Your task to perform on an android device: turn on the 12-hour format for clock Image 0: 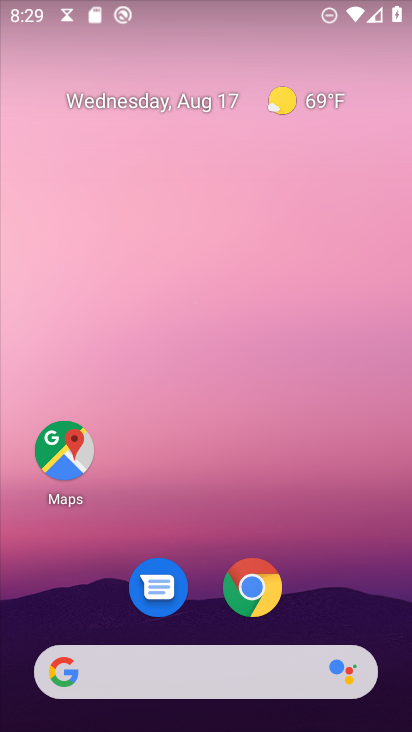
Step 0: drag from (26, 717) to (103, 216)
Your task to perform on an android device: turn on the 12-hour format for clock Image 1: 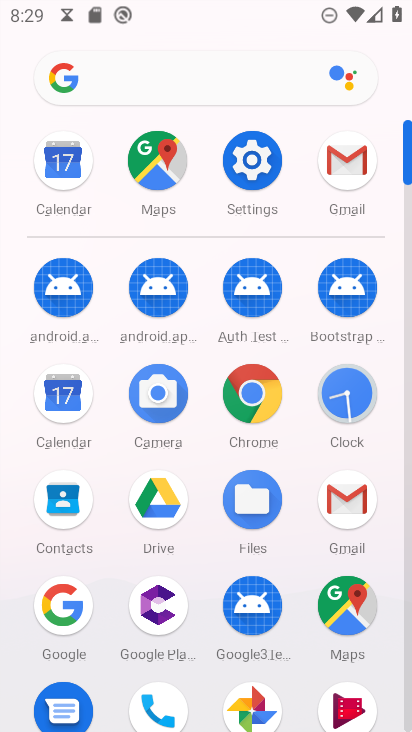
Step 1: click (359, 397)
Your task to perform on an android device: turn on the 12-hour format for clock Image 2: 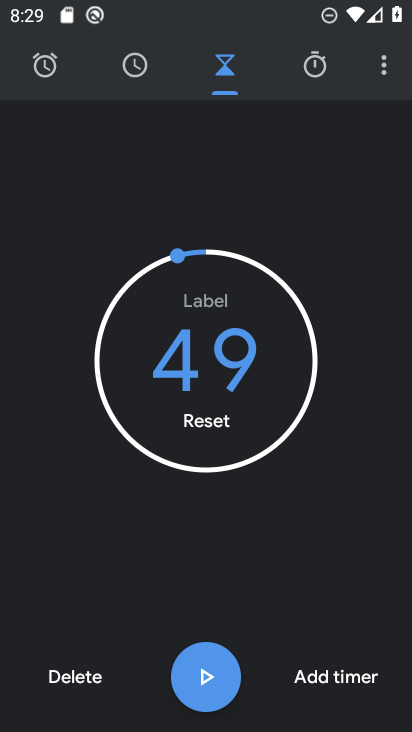
Step 2: click (45, 71)
Your task to perform on an android device: turn on the 12-hour format for clock Image 3: 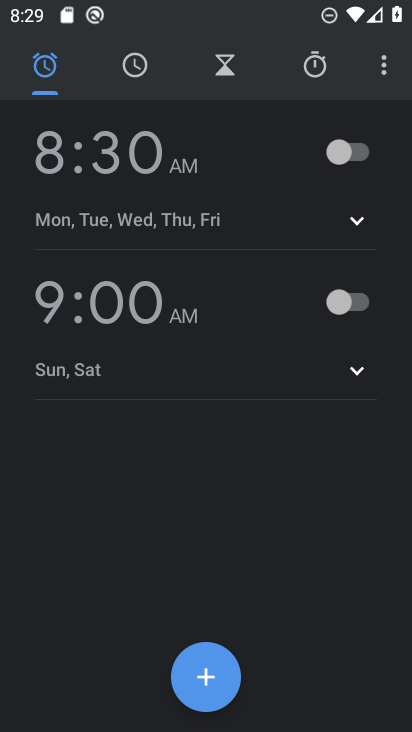
Step 3: click (380, 68)
Your task to perform on an android device: turn on the 12-hour format for clock Image 4: 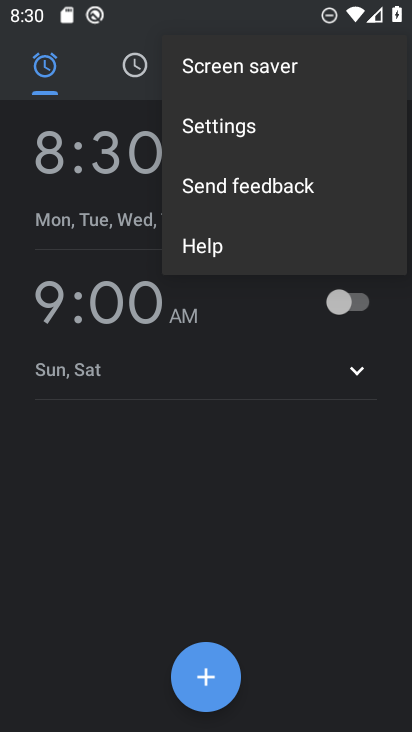
Step 4: click (236, 130)
Your task to perform on an android device: turn on the 12-hour format for clock Image 5: 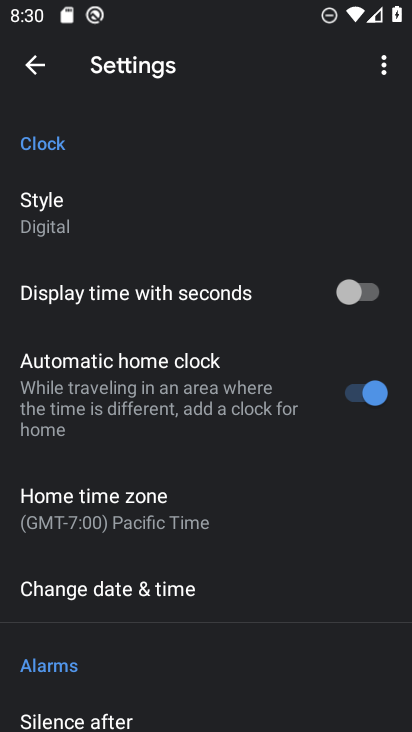
Step 5: click (148, 590)
Your task to perform on an android device: turn on the 12-hour format for clock Image 6: 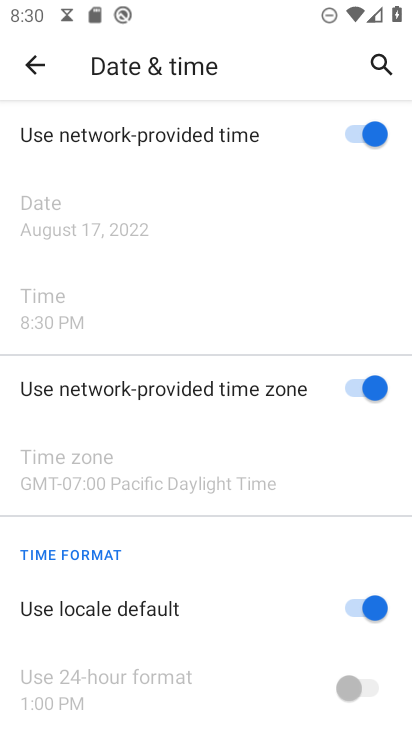
Step 6: click (368, 606)
Your task to perform on an android device: turn on the 12-hour format for clock Image 7: 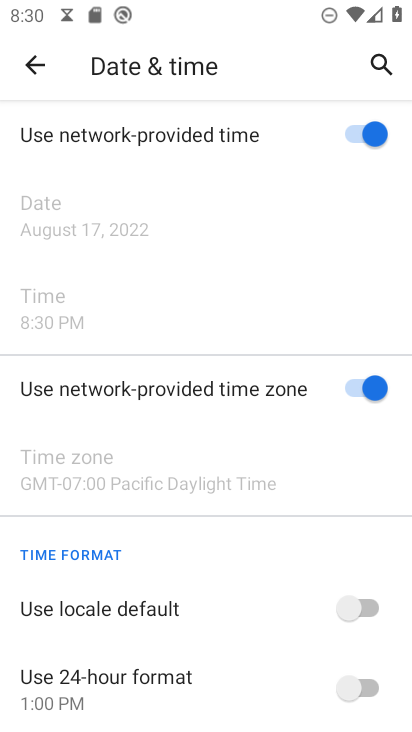
Step 7: click (354, 694)
Your task to perform on an android device: turn on the 12-hour format for clock Image 8: 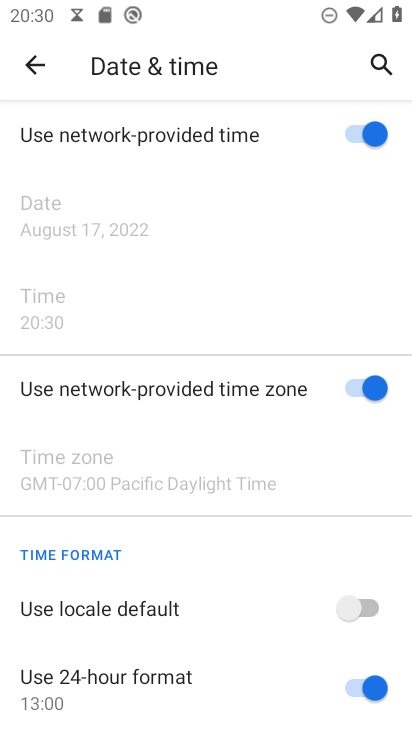
Step 8: task complete